Your task to perform on an android device: move a message to another label in the gmail app Image 0: 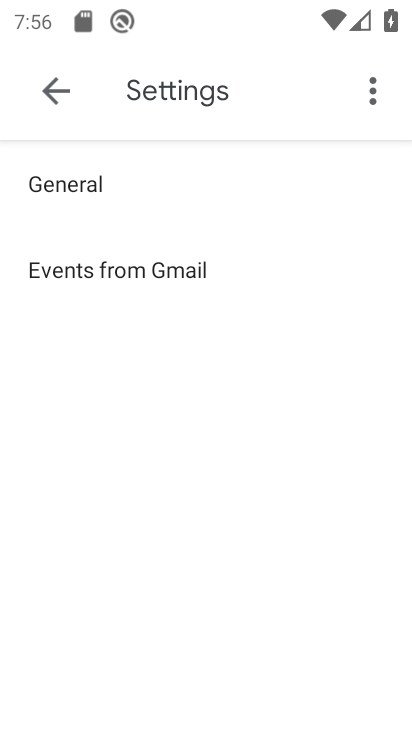
Step 0: press home button
Your task to perform on an android device: move a message to another label in the gmail app Image 1: 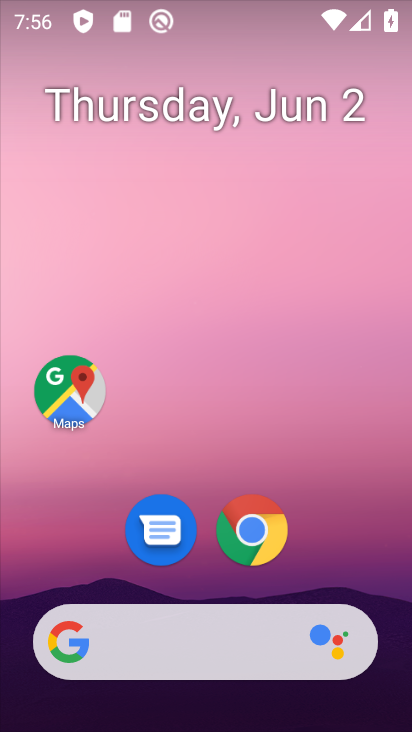
Step 1: drag from (228, 602) to (152, 30)
Your task to perform on an android device: move a message to another label in the gmail app Image 2: 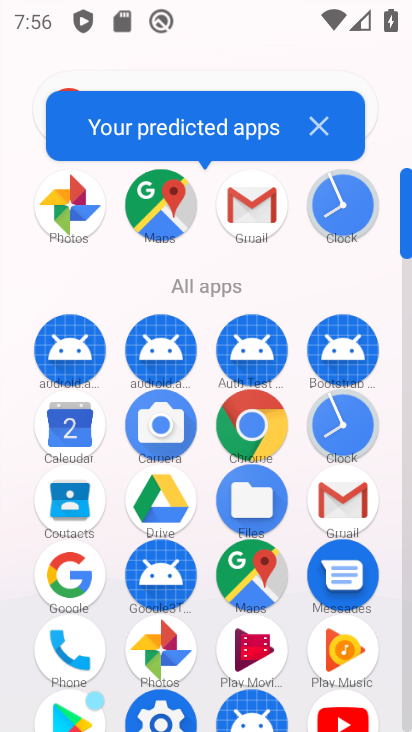
Step 2: click (342, 515)
Your task to perform on an android device: move a message to another label in the gmail app Image 3: 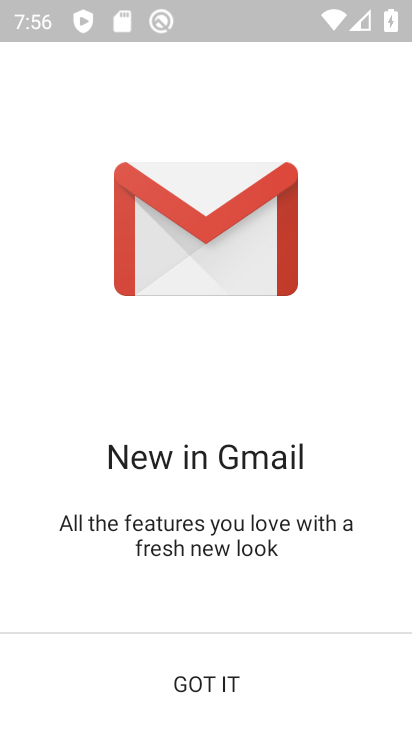
Step 3: click (165, 641)
Your task to perform on an android device: move a message to another label in the gmail app Image 4: 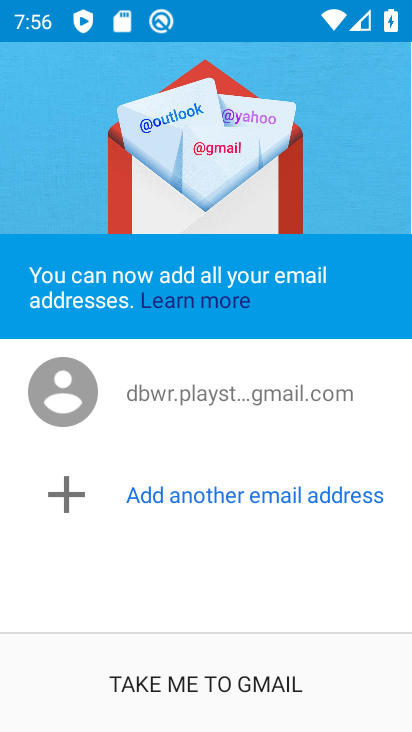
Step 4: click (165, 674)
Your task to perform on an android device: move a message to another label in the gmail app Image 5: 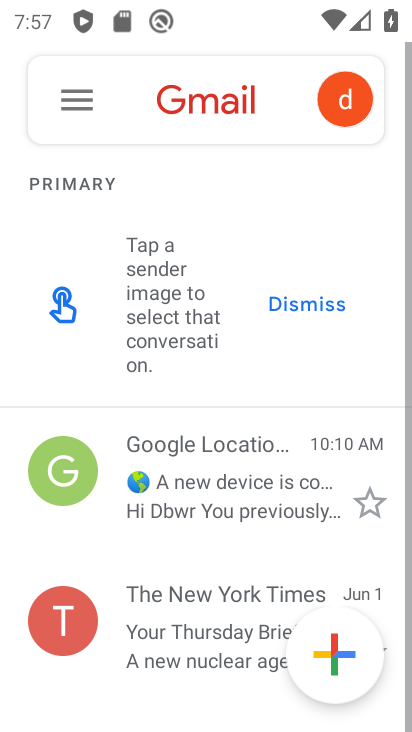
Step 5: click (145, 458)
Your task to perform on an android device: move a message to another label in the gmail app Image 6: 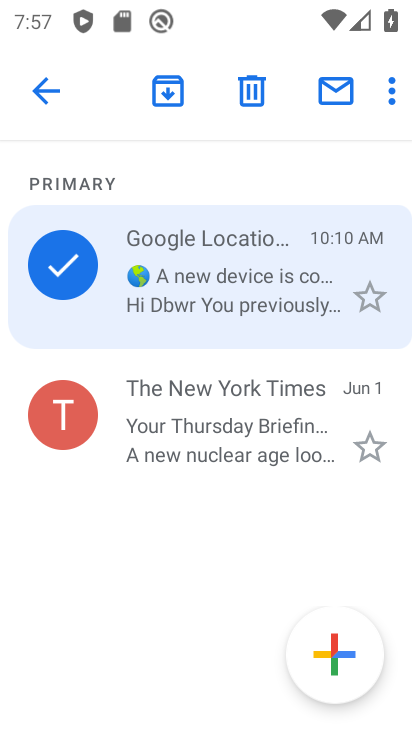
Step 6: click (374, 98)
Your task to perform on an android device: move a message to another label in the gmail app Image 7: 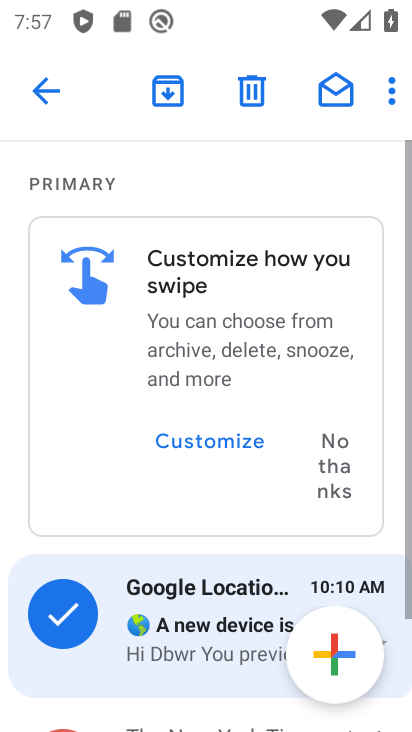
Step 7: click (393, 96)
Your task to perform on an android device: move a message to another label in the gmail app Image 8: 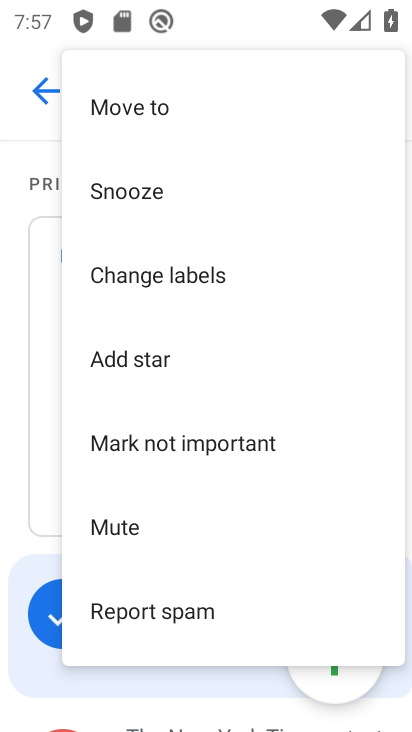
Step 8: click (150, 96)
Your task to perform on an android device: move a message to another label in the gmail app Image 9: 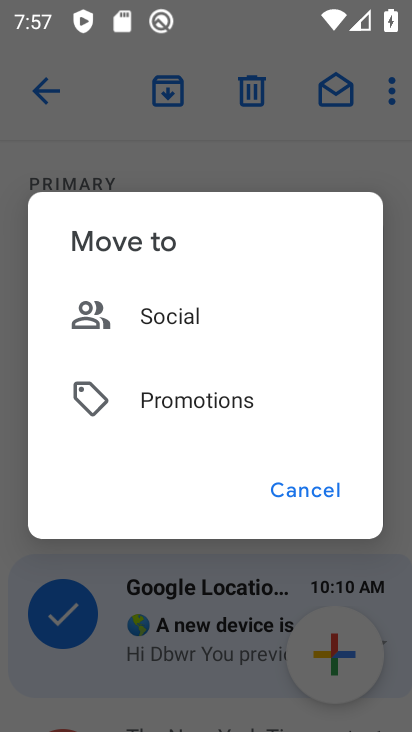
Step 9: click (187, 417)
Your task to perform on an android device: move a message to another label in the gmail app Image 10: 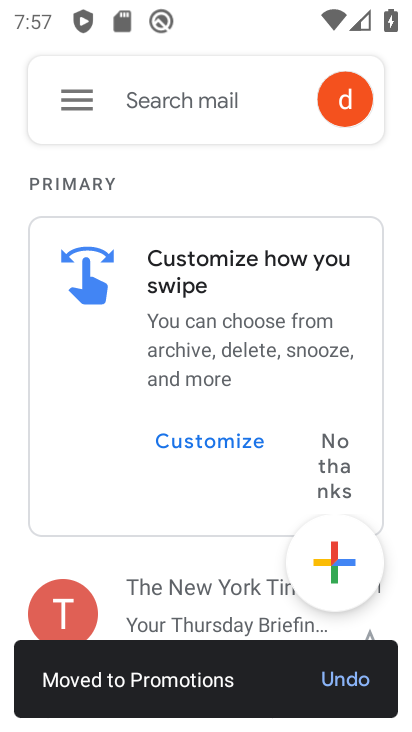
Step 10: task complete